Your task to perform on an android device: toggle javascript in the chrome app Image 0: 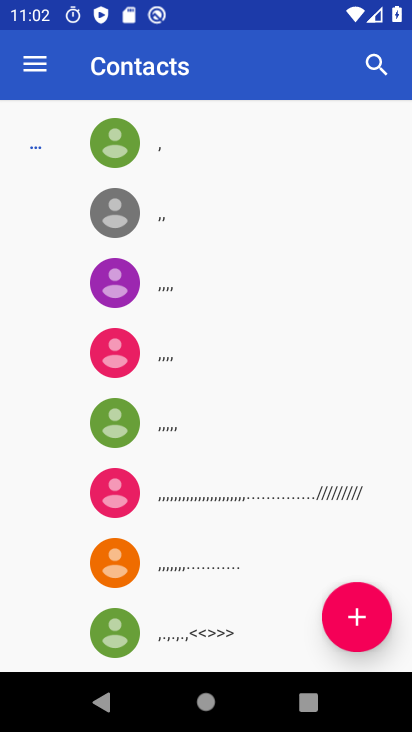
Step 0: press home button
Your task to perform on an android device: toggle javascript in the chrome app Image 1: 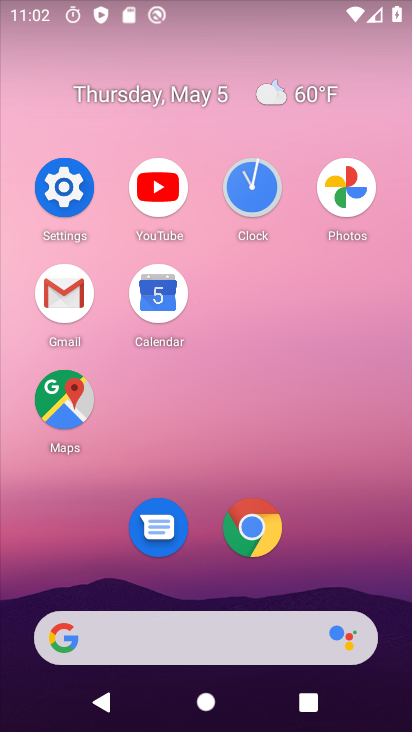
Step 1: click (263, 533)
Your task to perform on an android device: toggle javascript in the chrome app Image 2: 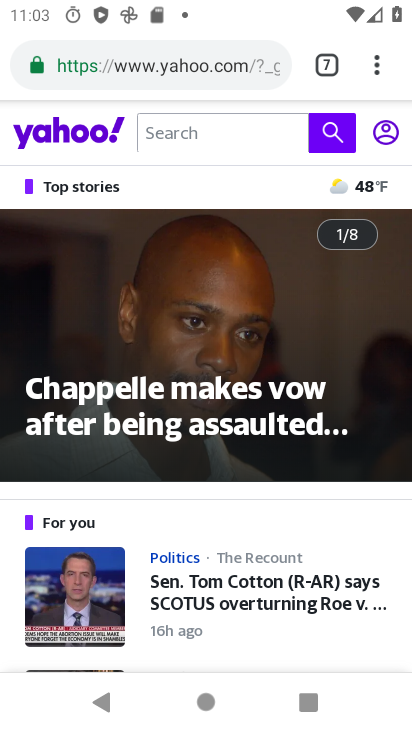
Step 2: click (382, 68)
Your task to perform on an android device: toggle javascript in the chrome app Image 3: 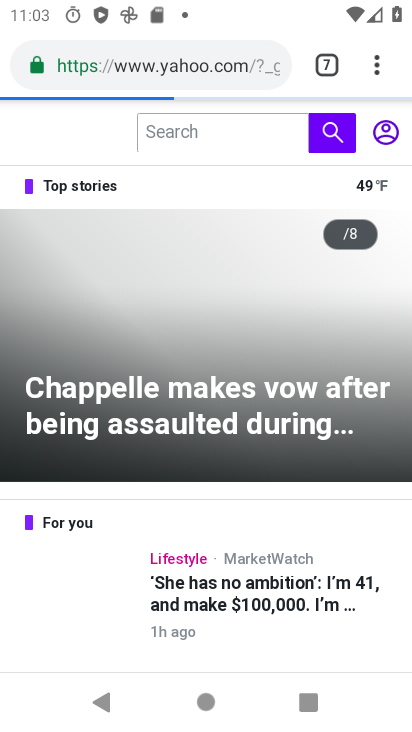
Step 3: click (376, 74)
Your task to perform on an android device: toggle javascript in the chrome app Image 4: 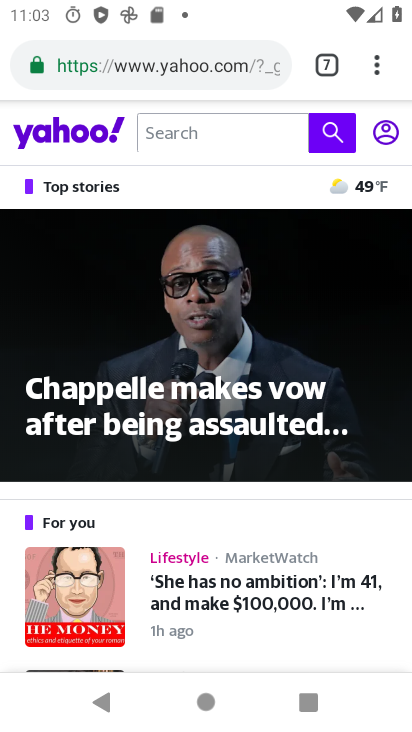
Step 4: click (376, 74)
Your task to perform on an android device: toggle javascript in the chrome app Image 5: 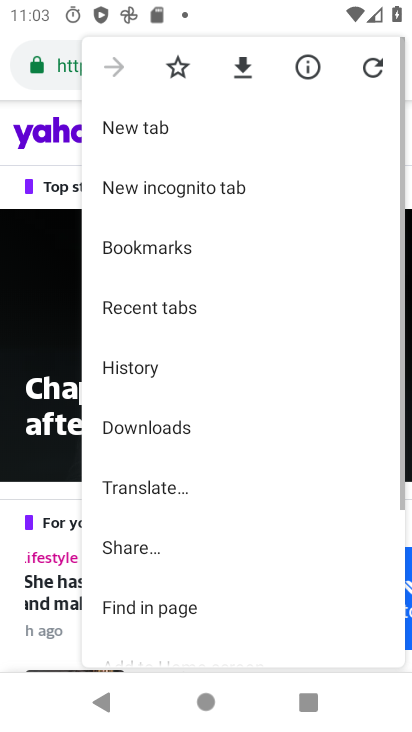
Step 5: drag from (325, 544) to (294, 68)
Your task to perform on an android device: toggle javascript in the chrome app Image 6: 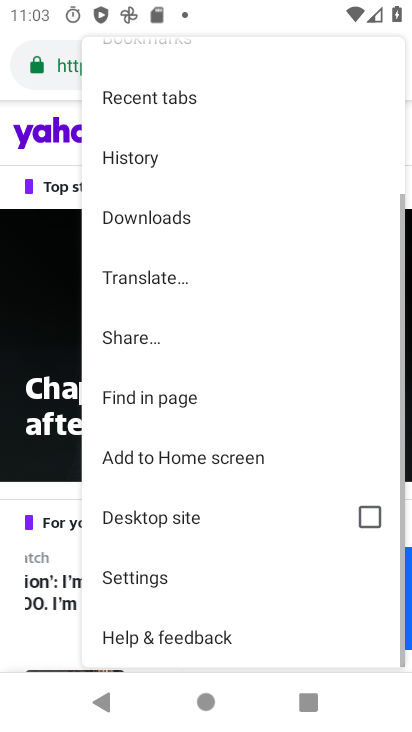
Step 6: click (181, 580)
Your task to perform on an android device: toggle javascript in the chrome app Image 7: 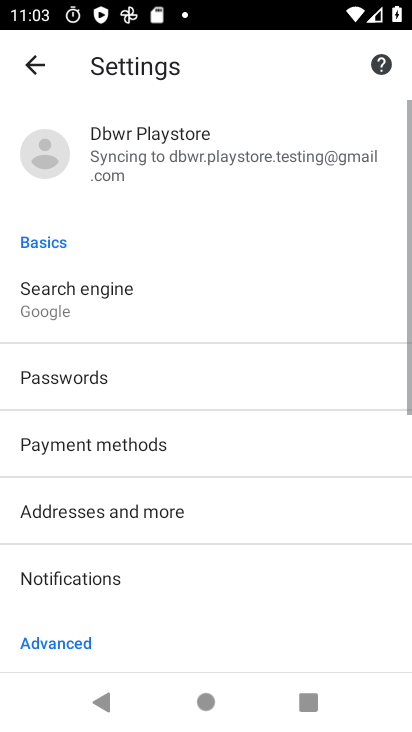
Step 7: drag from (181, 580) to (205, 188)
Your task to perform on an android device: toggle javascript in the chrome app Image 8: 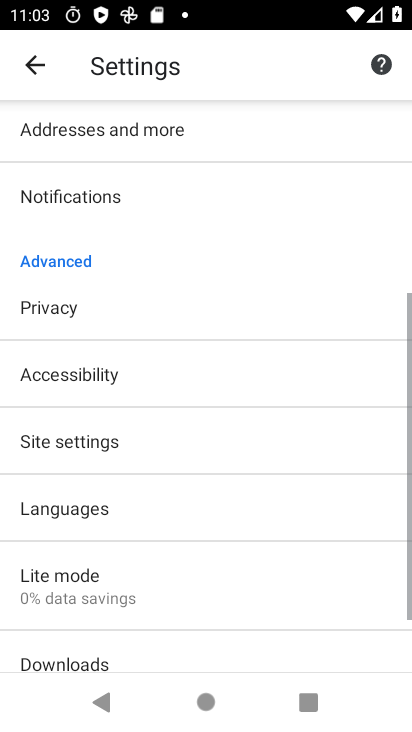
Step 8: click (127, 431)
Your task to perform on an android device: toggle javascript in the chrome app Image 9: 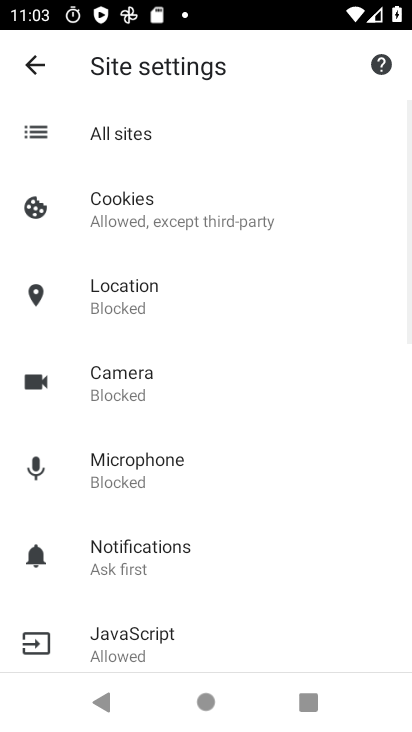
Step 9: drag from (207, 509) to (246, 221)
Your task to perform on an android device: toggle javascript in the chrome app Image 10: 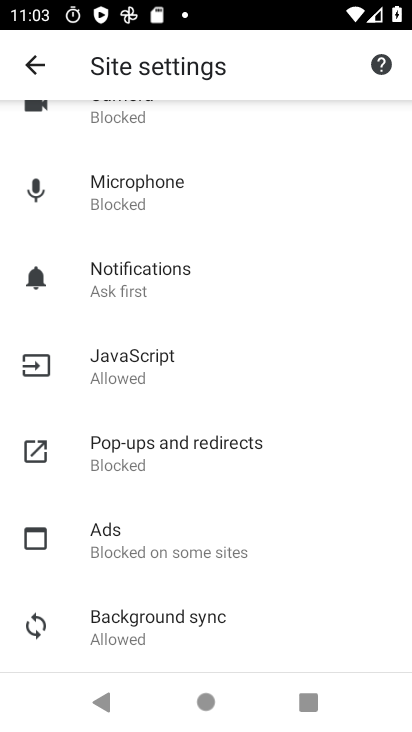
Step 10: click (167, 369)
Your task to perform on an android device: toggle javascript in the chrome app Image 11: 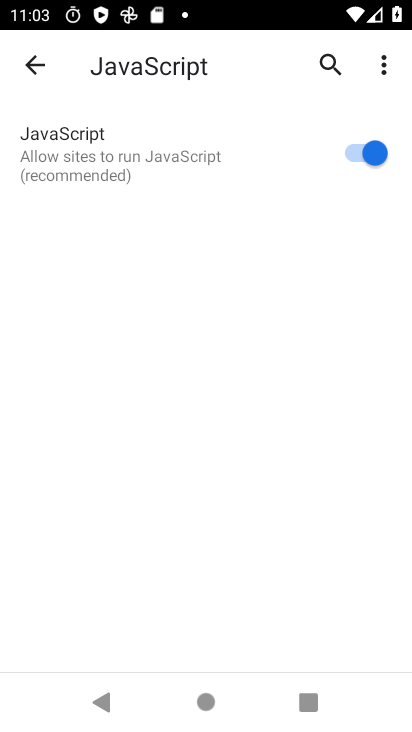
Step 11: click (376, 159)
Your task to perform on an android device: toggle javascript in the chrome app Image 12: 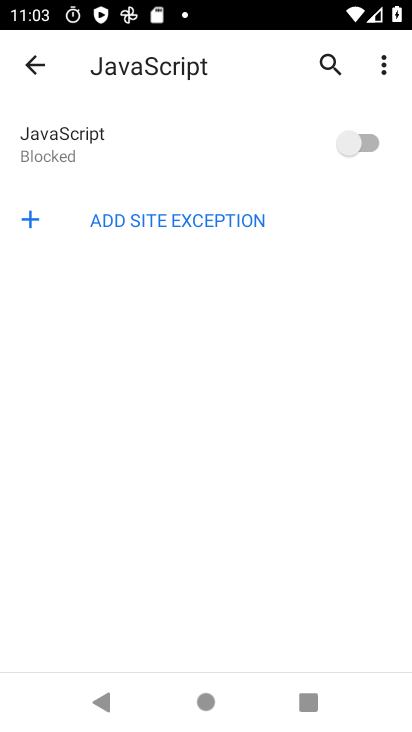
Step 12: task complete